Your task to perform on an android device: Show me popular games on the Play Store Image 0: 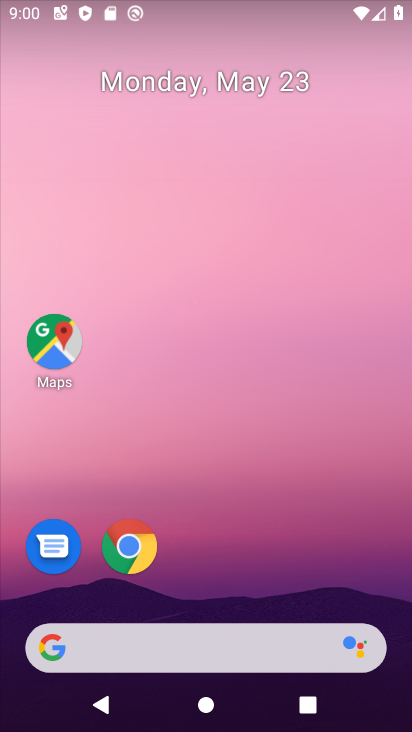
Step 0: drag from (389, 602) to (311, 39)
Your task to perform on an android device: Show me popular games on the Play Store Image 1: 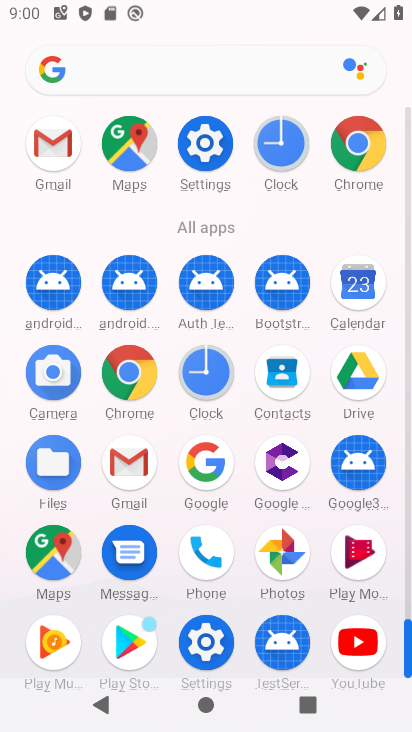
Step 1: click (141, 635)
Your task to perform on an android device: Show me popular games on the Play Store Image 2: 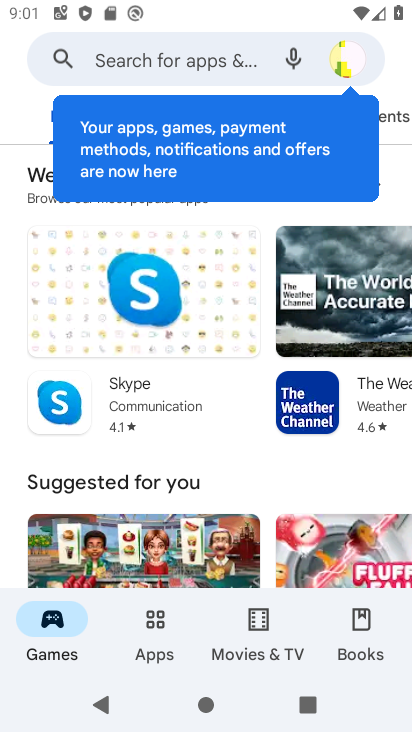
Step 2: drag from (183, 544) to (287, 56)
Your task to perform on an android device: Show me popular games on the Play Store Image 3: 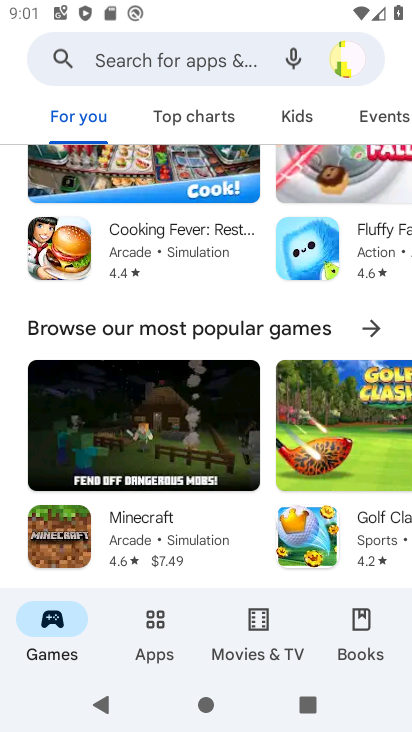
Step 3: click (371, 327)
Your task to perform on an android device: Show me popular games on the Play Store Image 4: 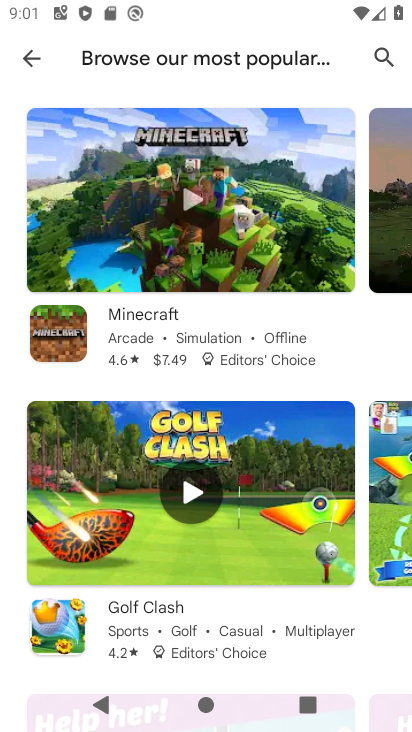
Step 4: task complete